Your task to perform on an android device: open wifi settings Image 0: 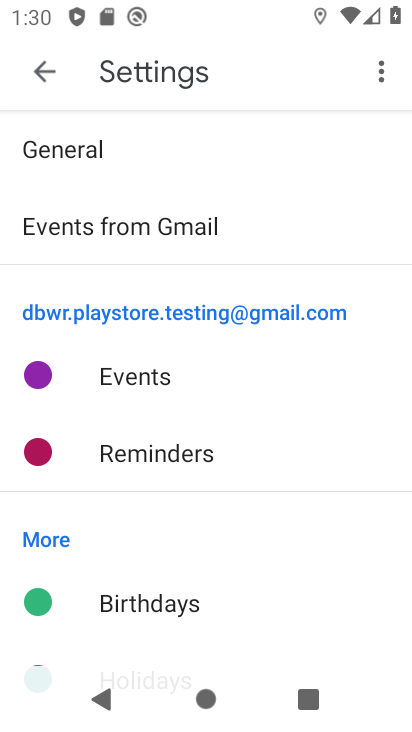
Step 0: press home button
Your task to perform on an android device: open wifi settings Image 1: 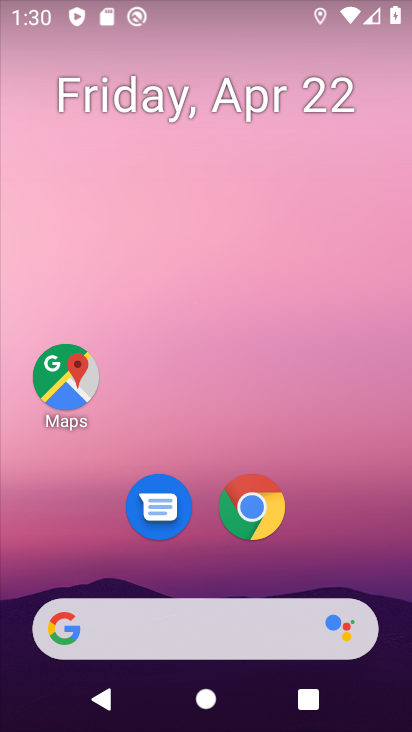
Step 1: drag from (161, 636) to (275, 27)
Your task to perform on an android device: open wifi settings Image 2: 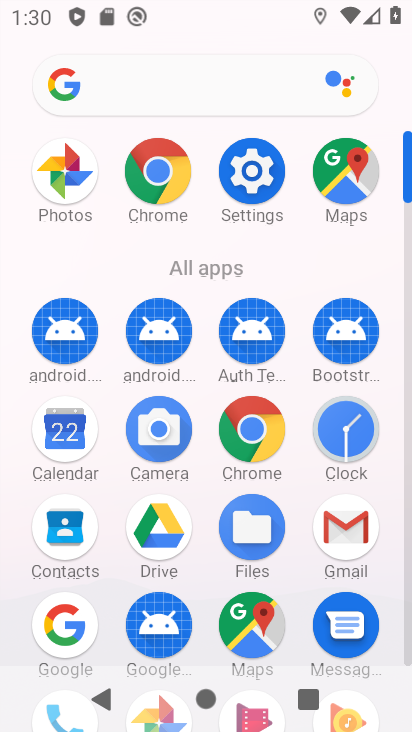
Step 2: click (250, 194)
Your task to perform on an android device: open wifi settings Image 3: 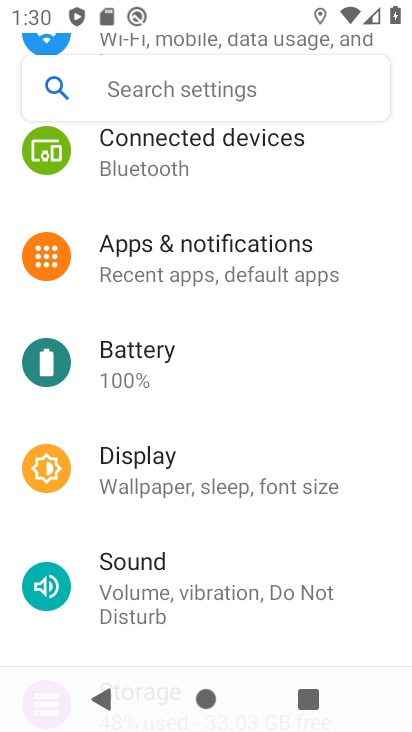
Step 3: drag from (297, 218) to (242, 569)
Your task to perform on an android device: open wifi settings Image 4: 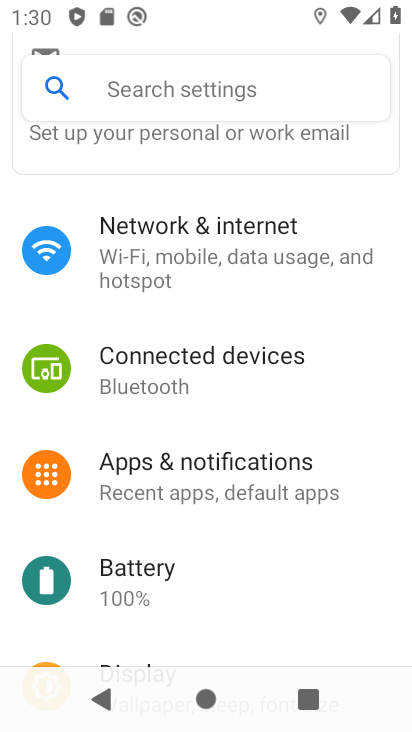
Step 4: click (244, 248)
Your task to perform on an android device: open wifi settings Image 5: 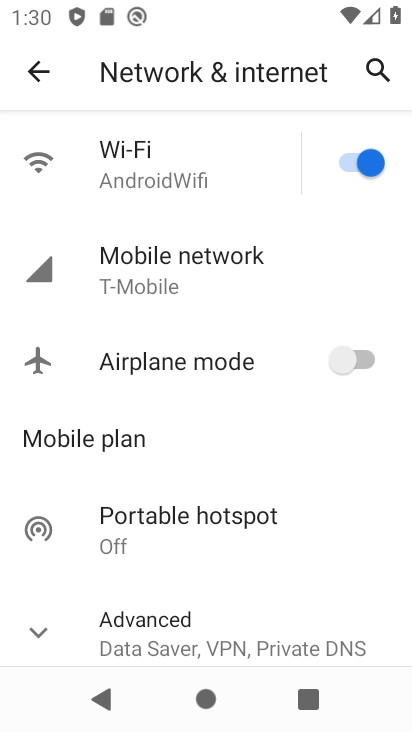
Step 5: click (129, 168)
Your task to perform on an android device: open wifi settings Image 6: 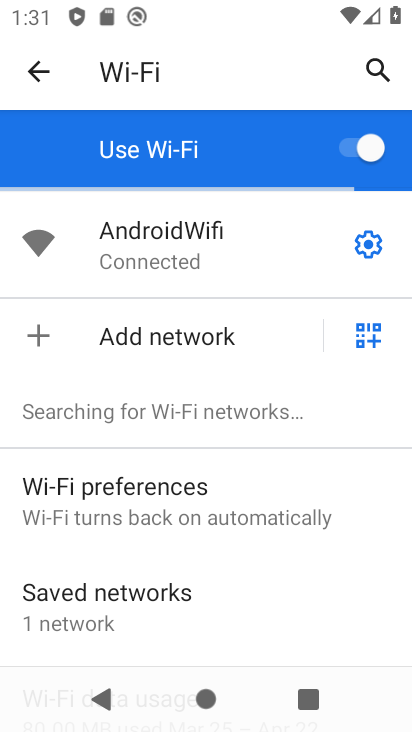
Step 6: task complete